Your task to perform on an android device: turn off airplane mode Image 0: 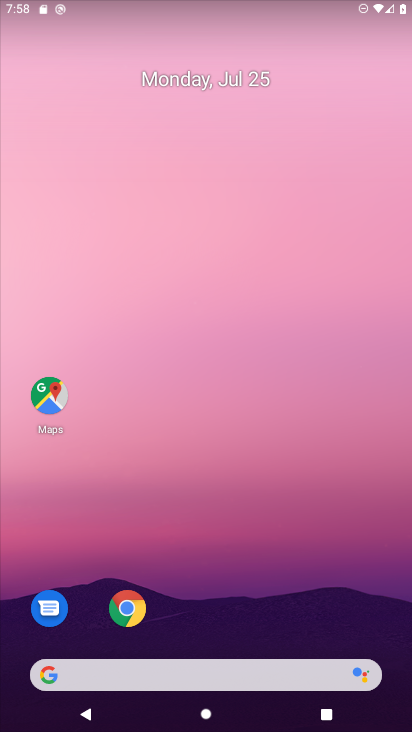
Step 0: drag from (275, 614) to (166, 86)
Your task to perform on an android device: turn off airplane mode Image 1: 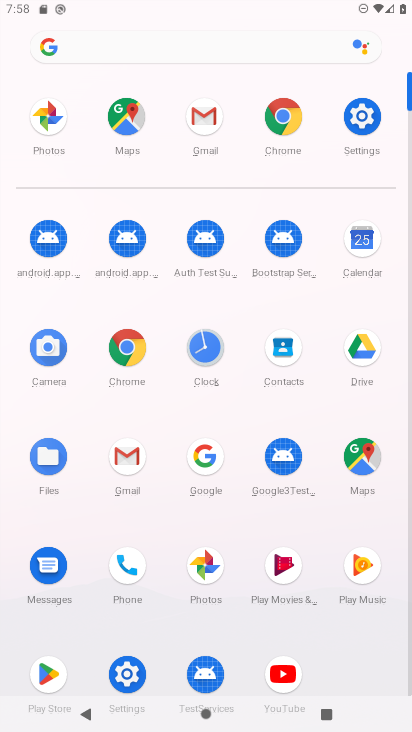
Step 1: click (360, 119)
Your task to perform on an android device: turn off airplane mode Image 2: 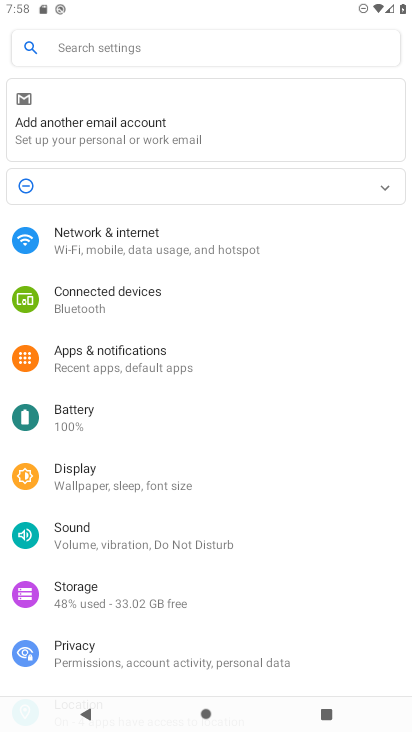
Step 2: click (93, 240)
Your task to perform on an android device: turn off airplane mode Image 3: 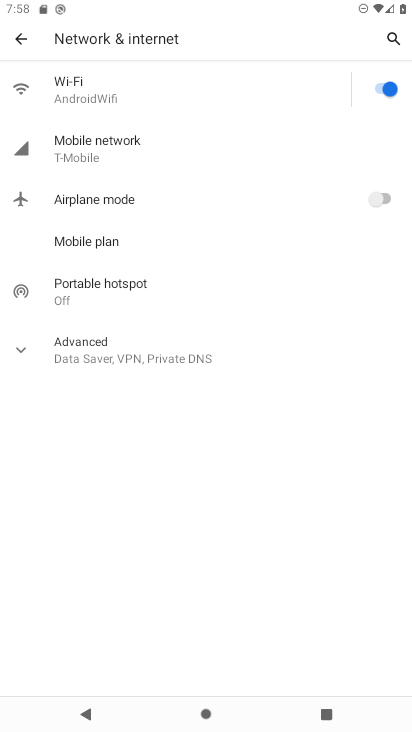
Step 3: task complete